Your task to perform on an android device: empty trash in google photos Image 0: 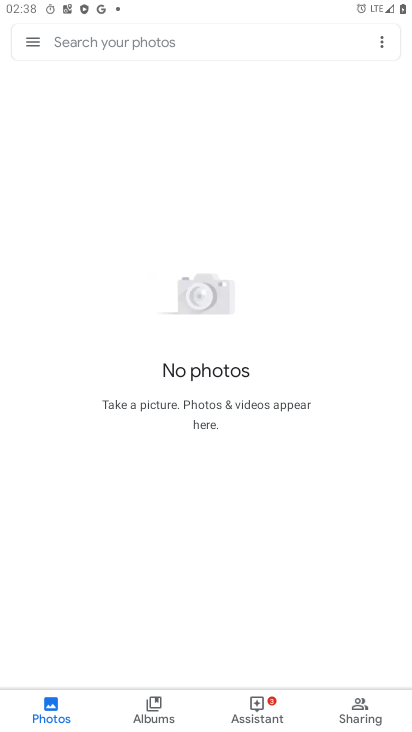
Step 0: click (34, 44)
Your task to perform on an android device: empty trash in google photos Image 1: 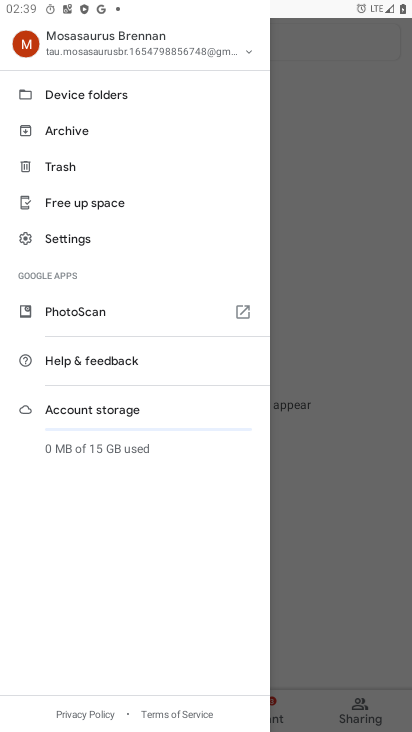
Step 1: click (59, 166)
Your task to perform on an android device: empty trash in google photos Image 2: 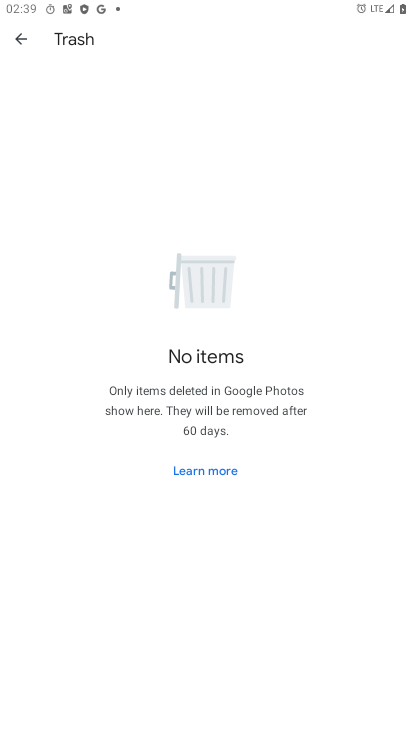
Step 2: task complete